Your task to perform on an android device: Open Reddit.com Image 0: 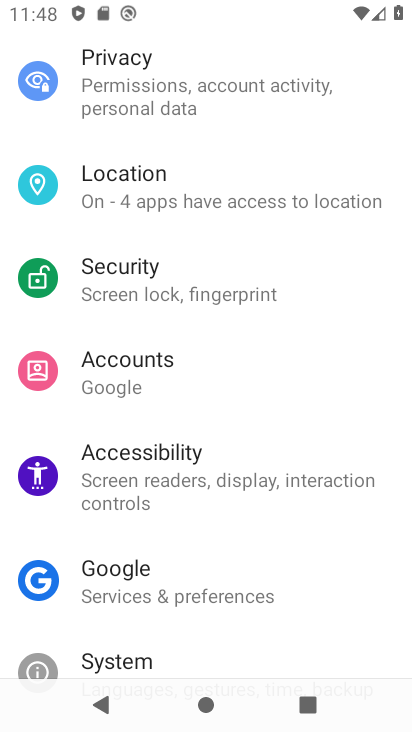
Step 0: press home button
Your task to perform on an android device: Open Reddit.com Image 1: 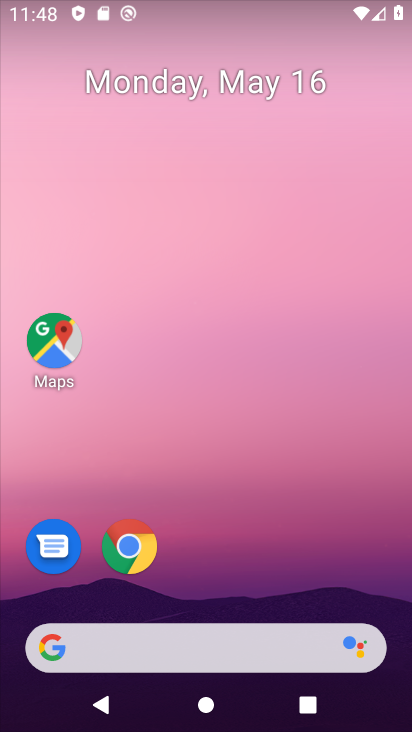
Step 1: drag from (247, 522) to (244, 102)
Your task to perform on an android device: Open Reddit.com Image 2: 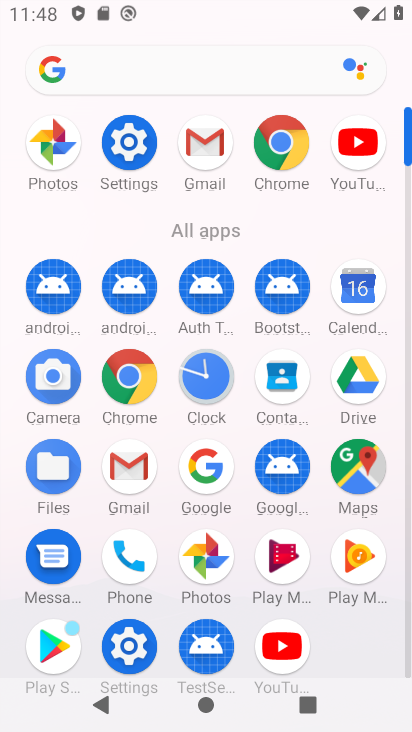
Step 2: click (206, 460)
Your task to perform on an android device: Open Reddit.com Image 3: 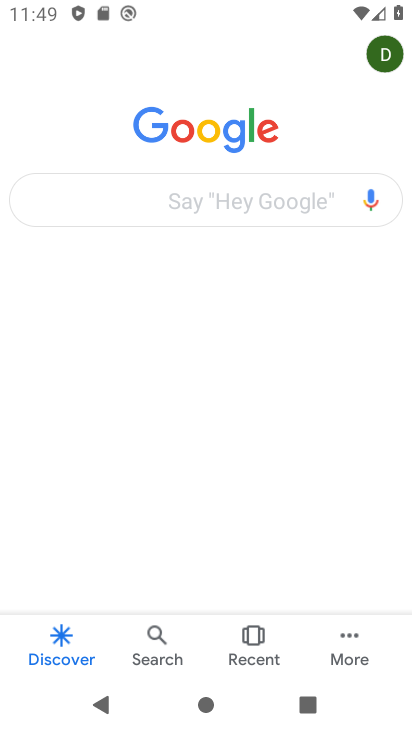
Step 3: click (149, 195)
Your task to perform on an android device: Open Reddit.com Image 4: 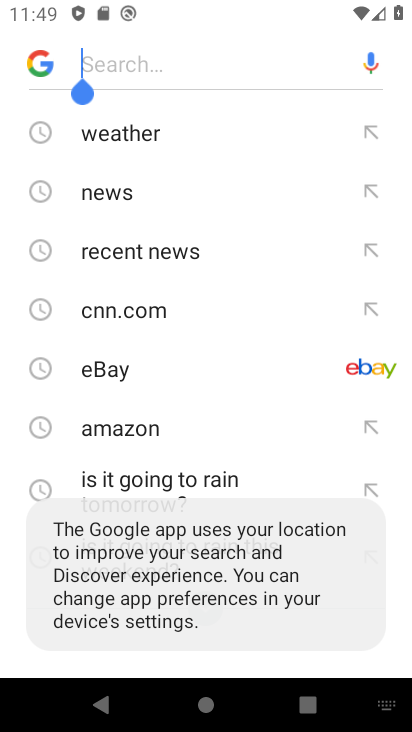
Step 4: drag from (206, 429) to (210, 144)
Your task to perform on an android device: Open Reddit.com Image 5: 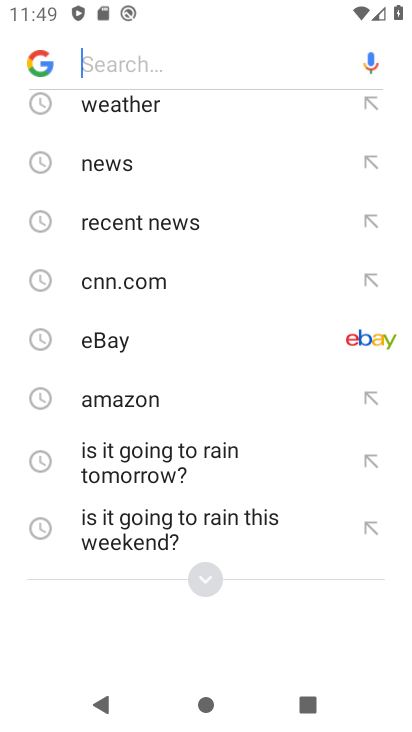
Step 5: type "reddit.com"
Your task to perform on an android device: Open Reddit.com Image 6: 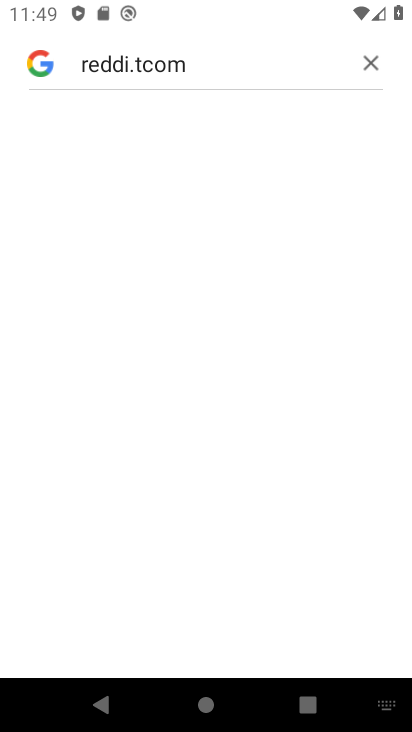
Step 6: click (368, 61)
Your task to perform on an android device: Open Reddit.com Image 7: 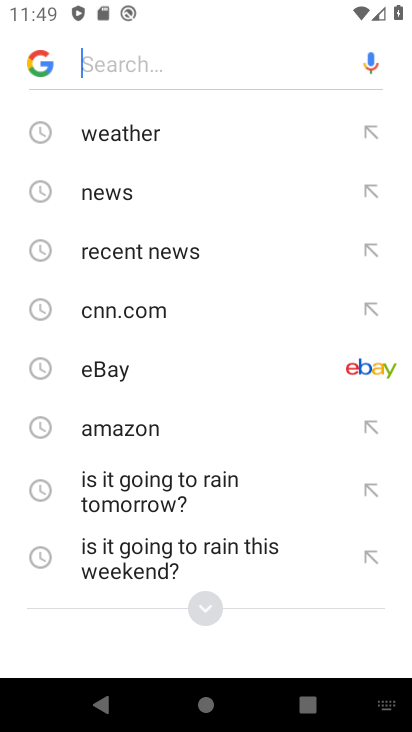
Step 7: drag from (243, 502) to (261, 133)
Your task to perform on an android device: Open Reddit.com Image 8: 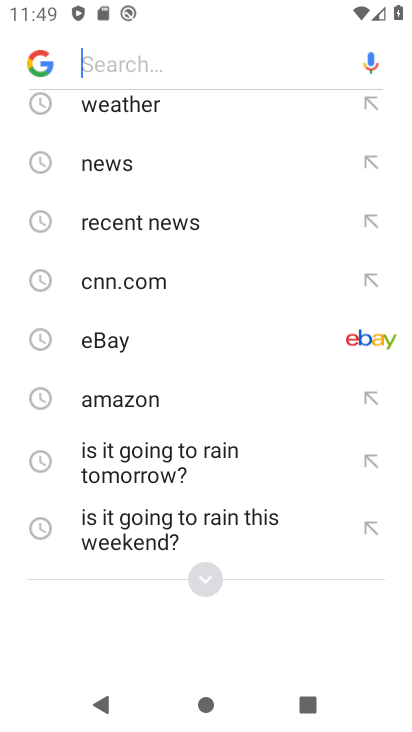
Step 8: type "reddit.com"
Your task to perform on an android device: Open Reddit.com Image 9: 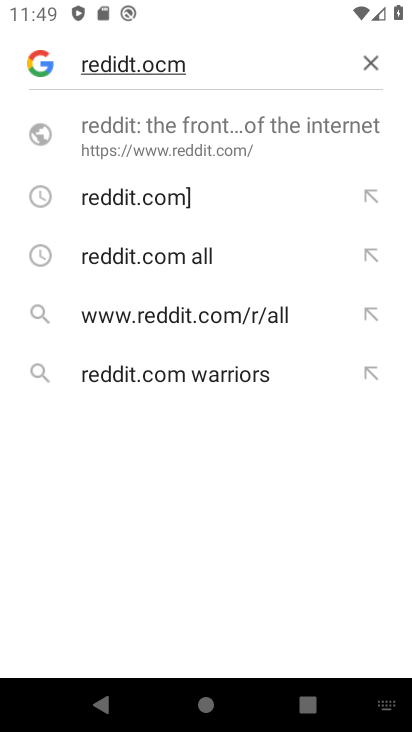
Step 9: click (201, 140)
Your task to perform on an android device: Open Reddit.com Image 10: 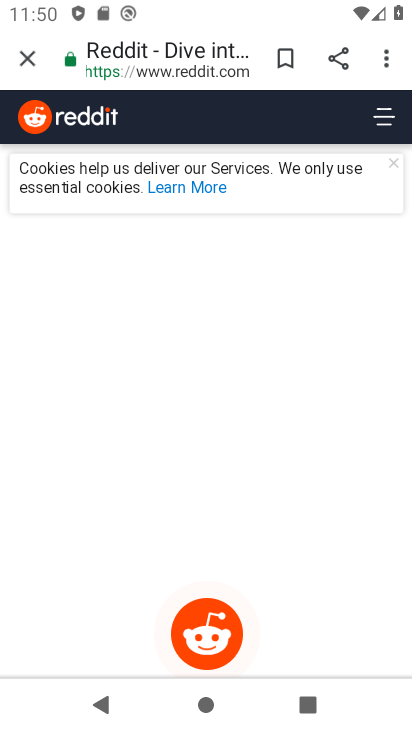
Step 10: task complete